Your task to perform on an android device: uninstall "Roku - Official Remote Control" Image 0: 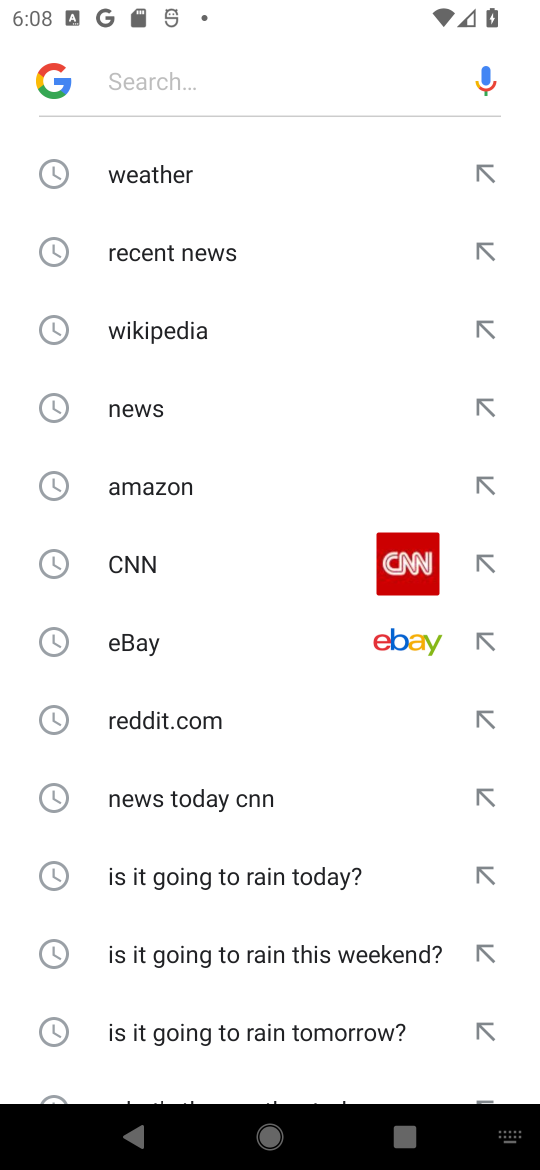
Step 0: press home button
Your task to perform on an android device: uninstall "Roku - Official Remote Control" Image 1: 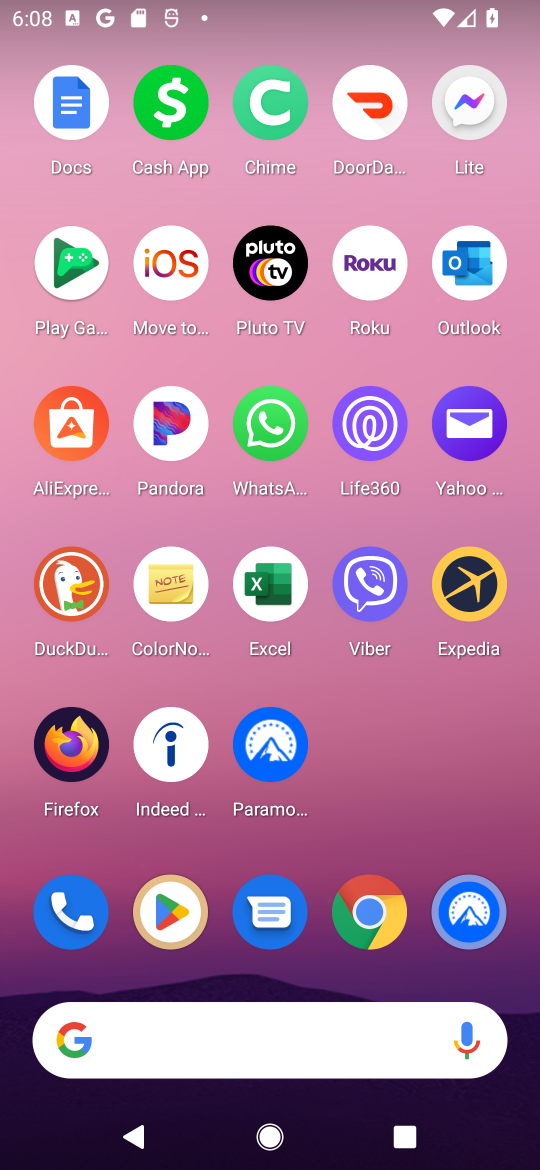
Step 1: click (174, 899)
Your task to perform on an android device: uninstall "Roku - Official Remote Control" Image 2: 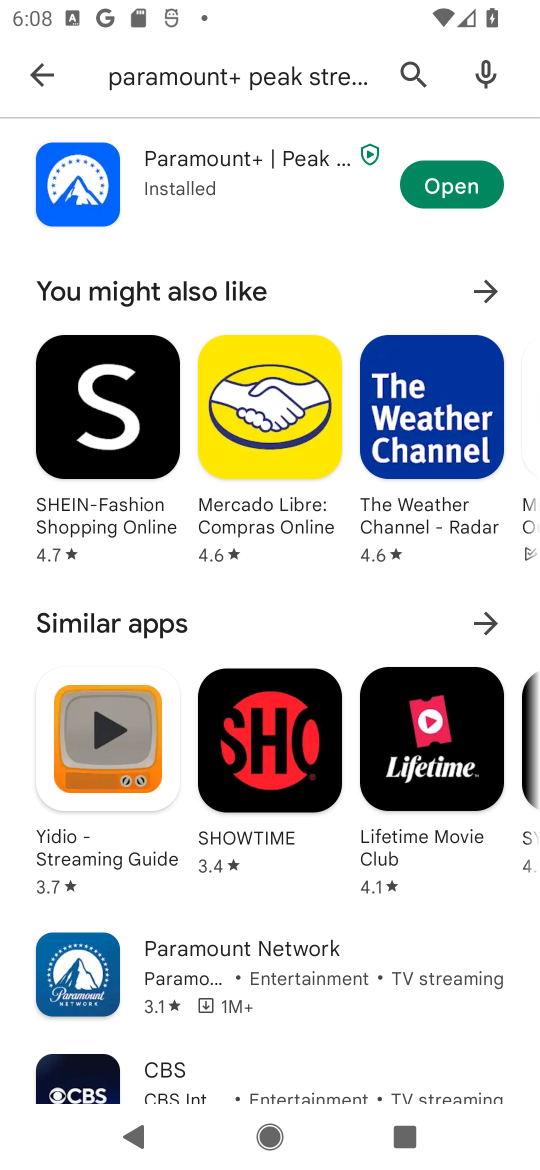
Step 2: click (33, 67)
Your task to perform on an android device: uninstall "Roku - Official Remote Control" Image 3: 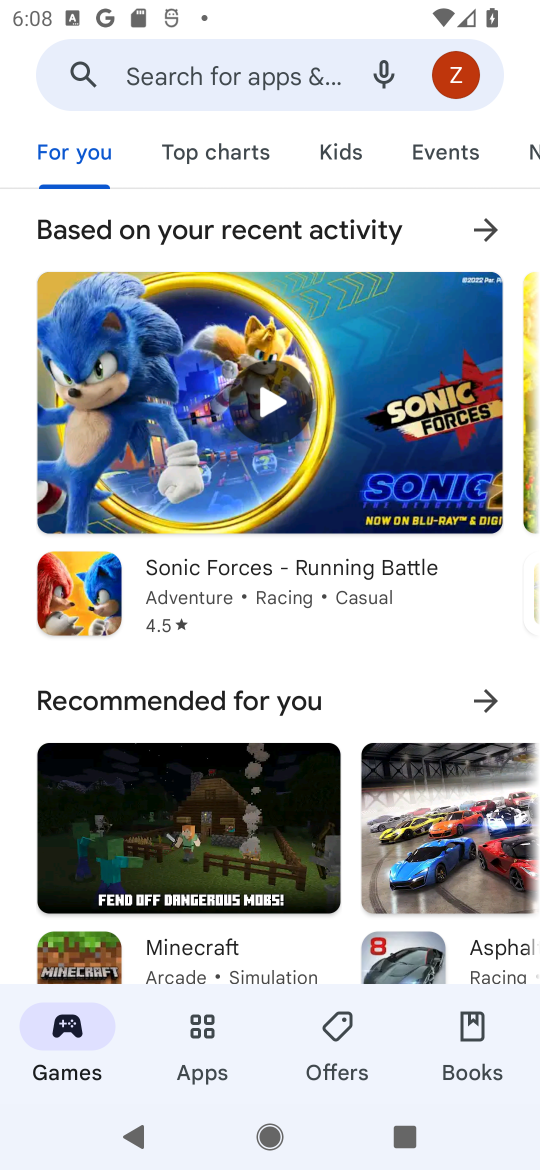
Step 3: click (227, 76)
Your task to perform on an android device: uninstall "Roku - Official Remote Control" Image 4: 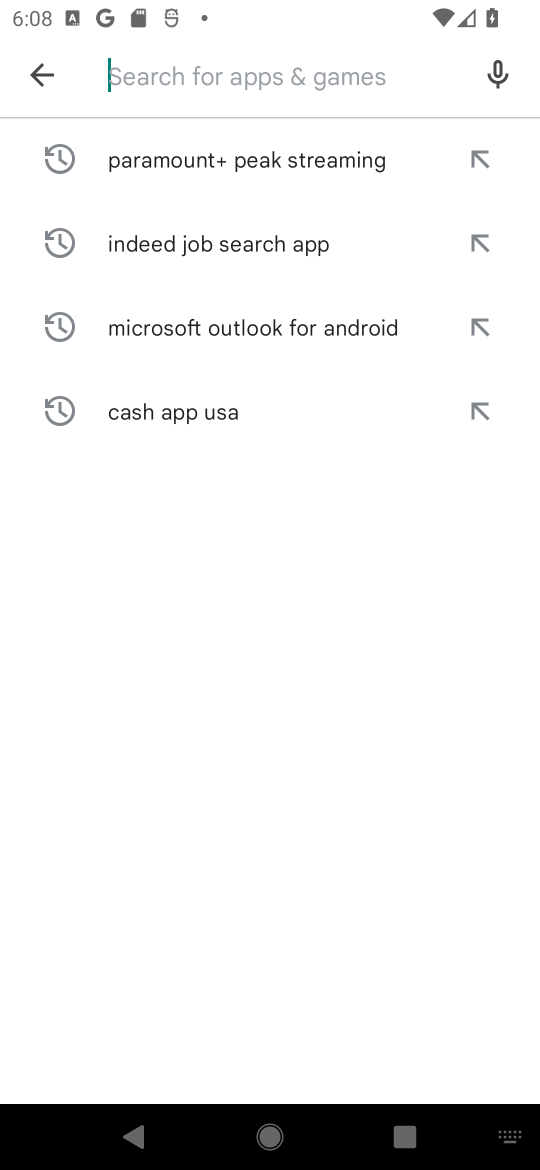
Step 4: type "Roku  "
Your task to perform on an android device: uninstall "Roku - Official Remote Control" Image 5: 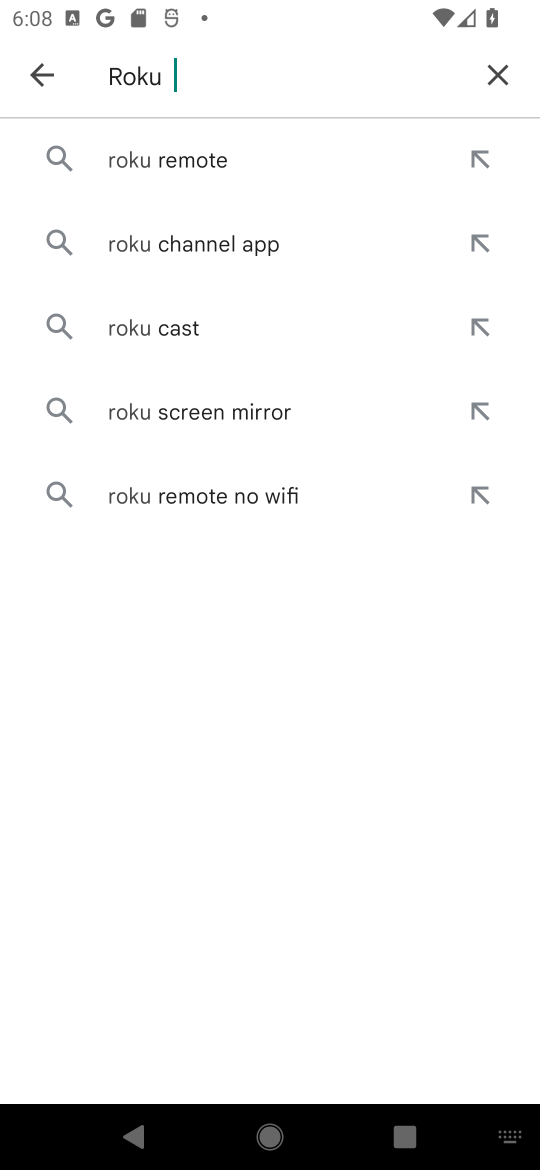
Step 5: click (210, 159)
Your task to perform on an android device: uninstall "Roku - Official Remote Control" Image 6: 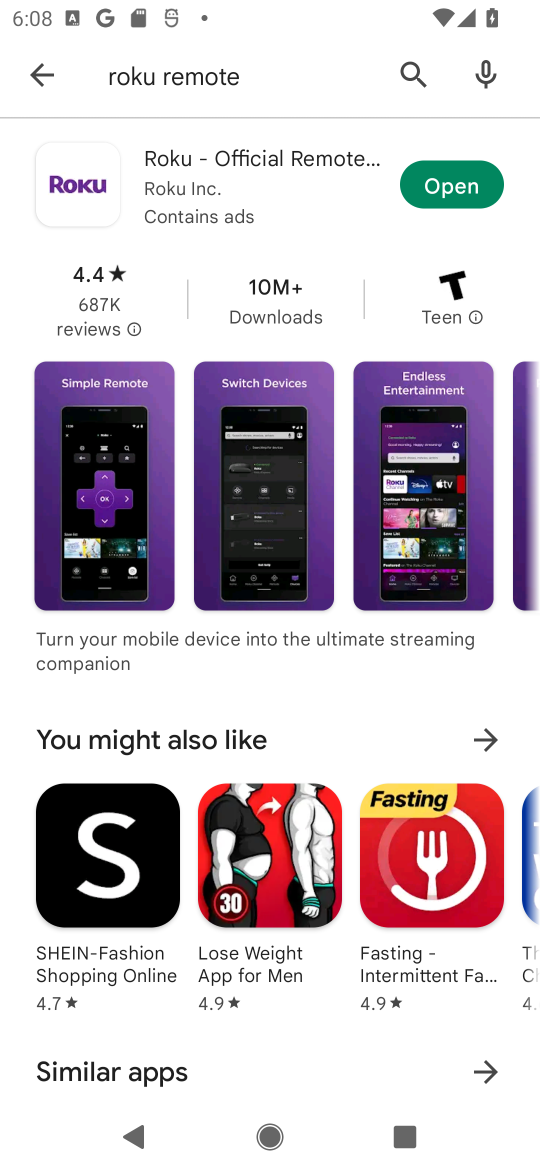
Step 6: click (455, 185)
Your task to perform on an android device: uninstall "Roku - Official Remote Control" Image 7: 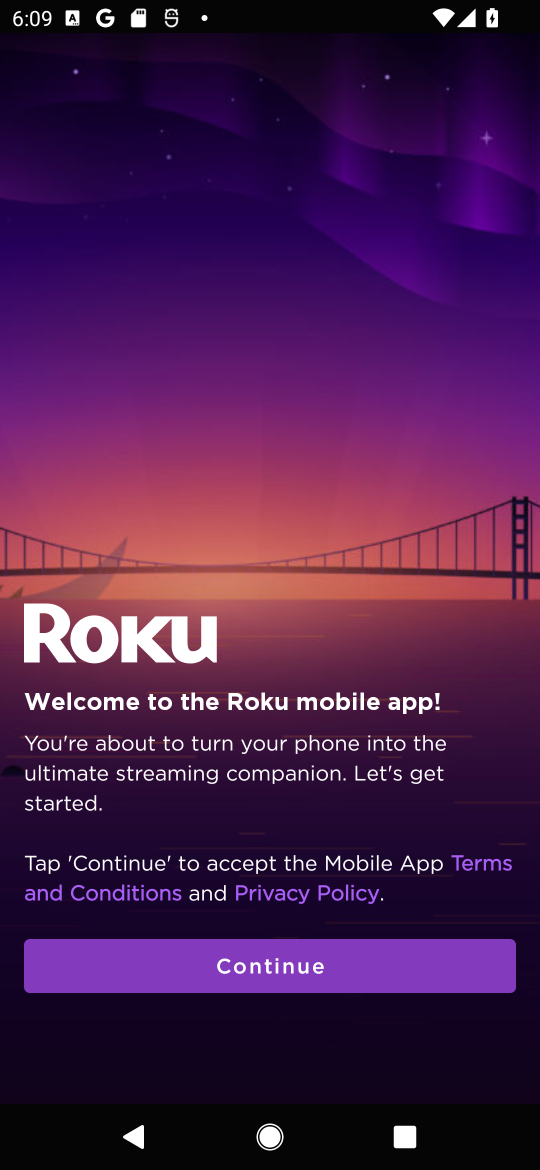
Step 7: press back button
Your task to perform on an android device: uninstall "Roku - Official Remote Control" Image 8: 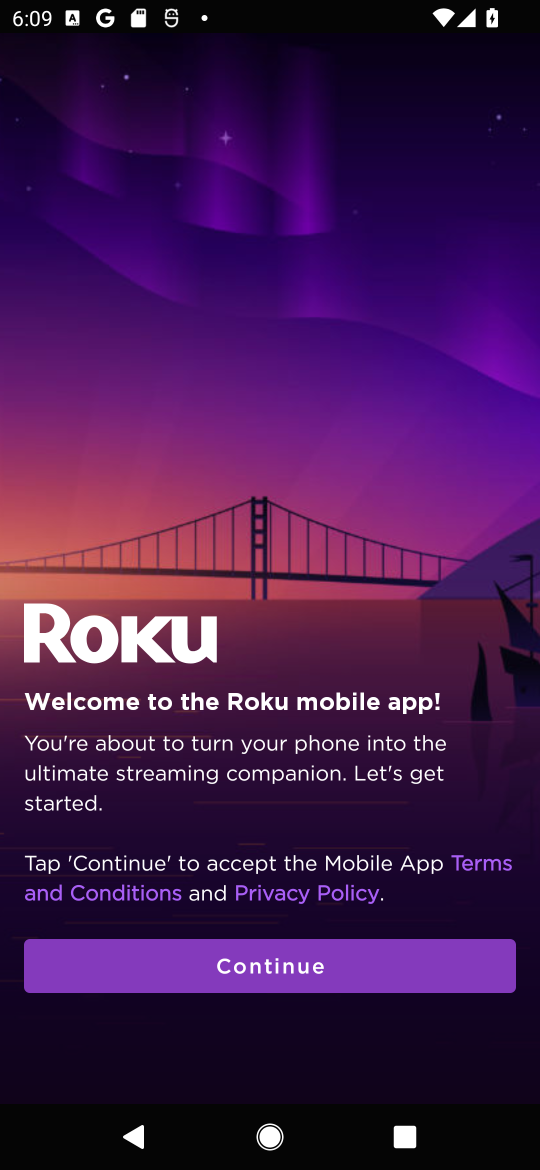
Step 8: press back button
Your task to perform on an android device: uninstall "Roku - Official Remote Control" Image 9: 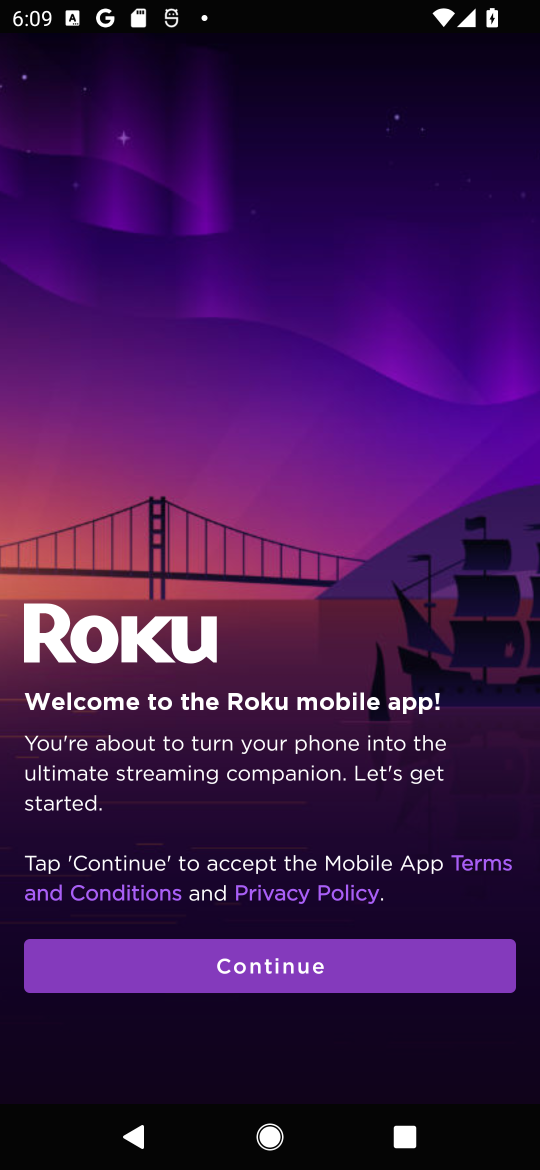
Step 9: press back button
Your task to perform on an android device: uninstall "Roku - Official Remote Control" Image 10: 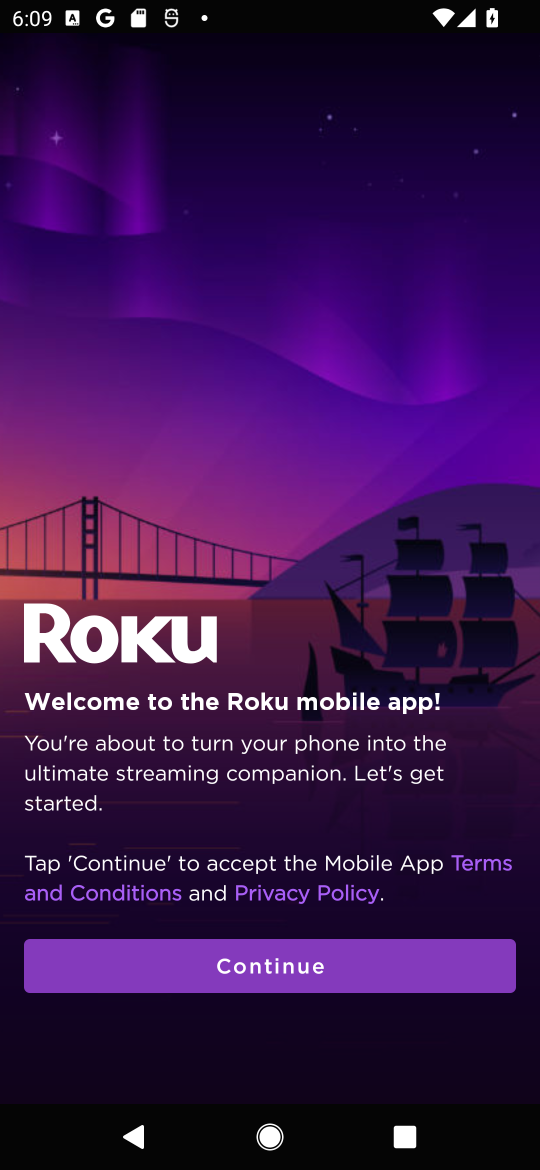
Step 10: press back button
Your task to perform on an android device: uninstall "Roku - Official Remote Control" Image 11: 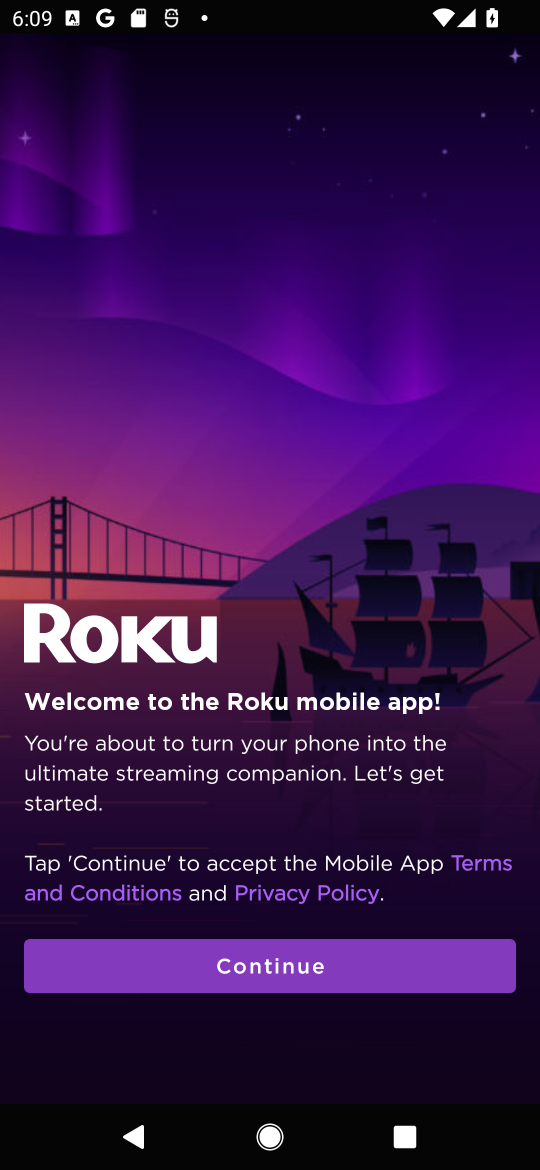
Step 11: press back button
Your task to perform on an android device: uninstall "Roku - Official Remote Control" Image 12: 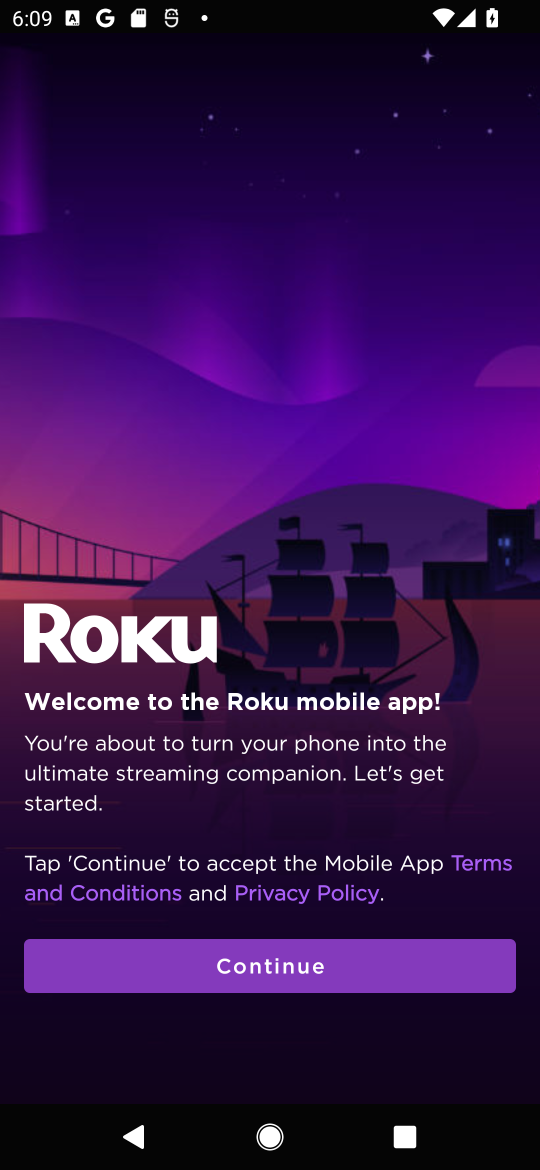
Step 12: press home button
Your task to perform on an android device: uninstall "Roku - Official Remote Control" Image 13: 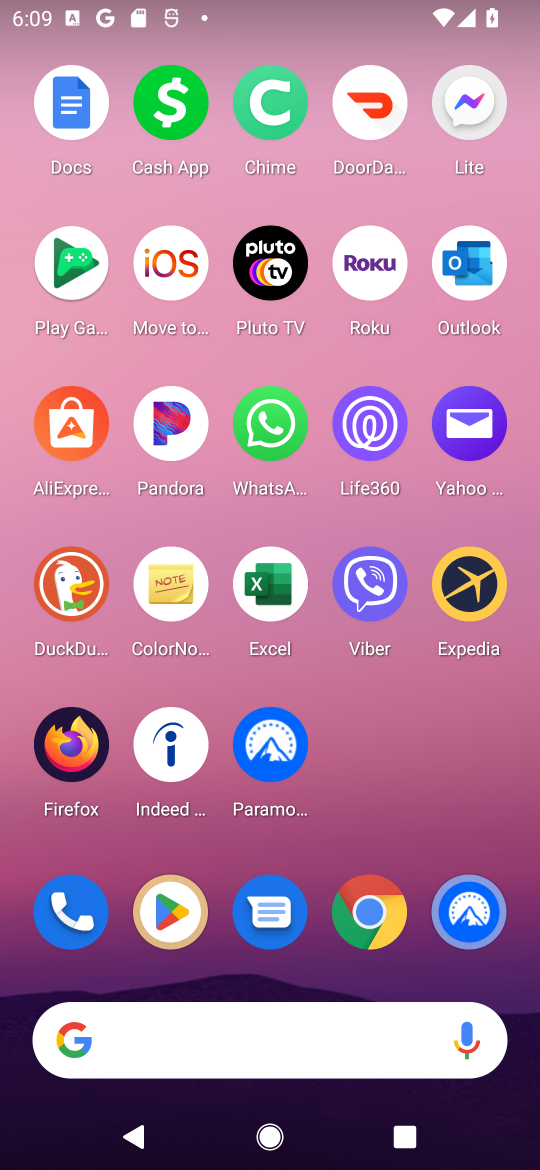
Step 13: click (186, 924)
Your task to perform on an android device: uninstall "Roku - Official Remote Control" Image 14: 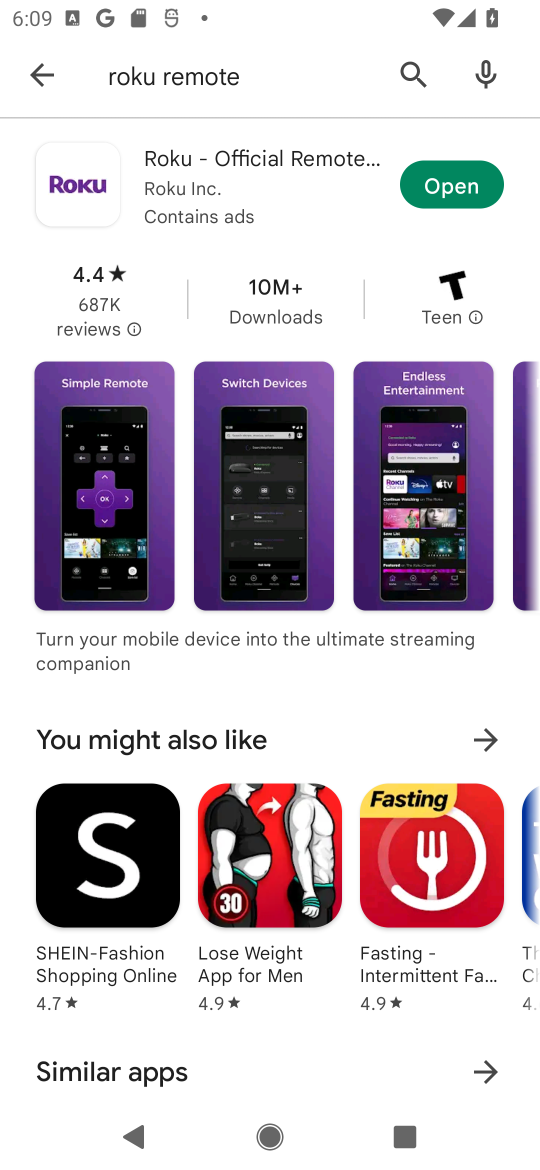
Step 14: click (222, 180)
Your task to perform on an android device: uninstall "Roku - Official Remote Control" Image 15: 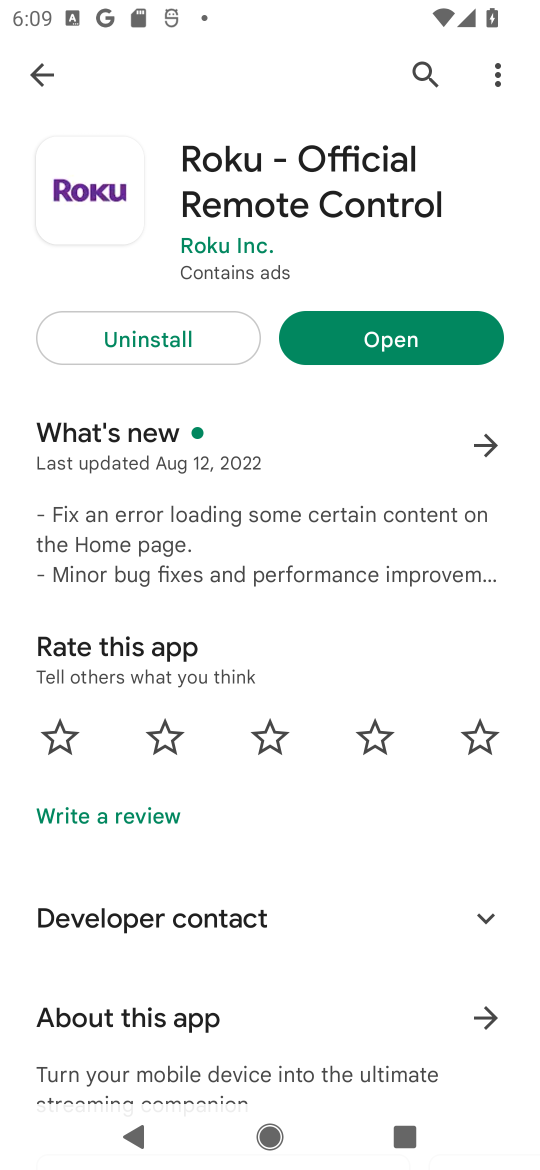
Step 15: click (117, 323)
Your task to perform on an android device: uninstall "Roku - Official Remote Control" Image 16: 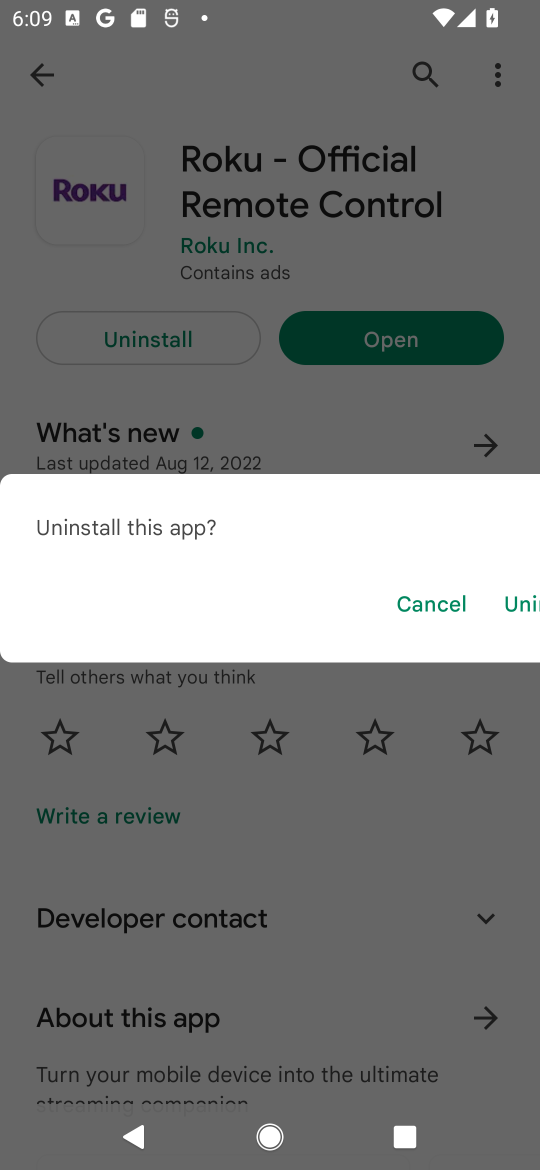
Step 16: click (517, 591)
Your task to perform on an android device: uninstall "Roku - Official Remote Control" Image 17: 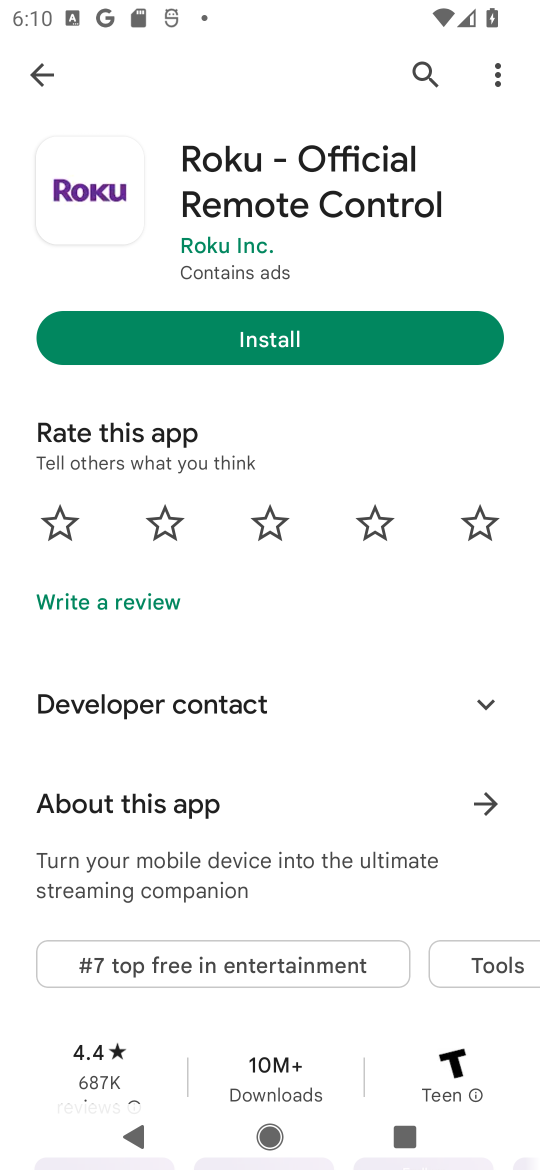
Step 17: task complete